Your task to perform on an android device: turn on translation in the chrome app Image 0: 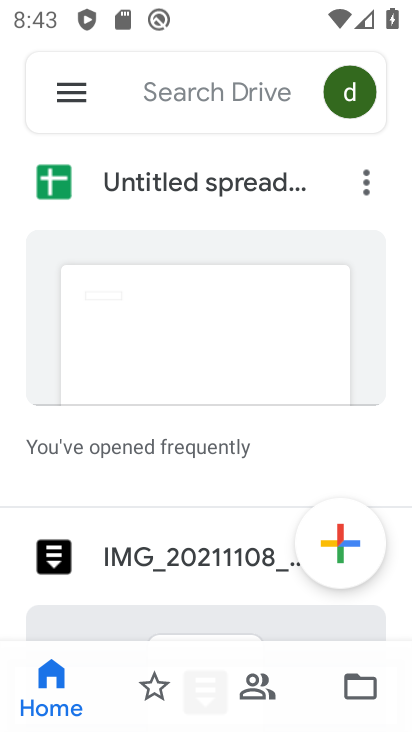
Step 0: press back button
Your task to perform on an android device: turn on translation in the chrome app Image 1: 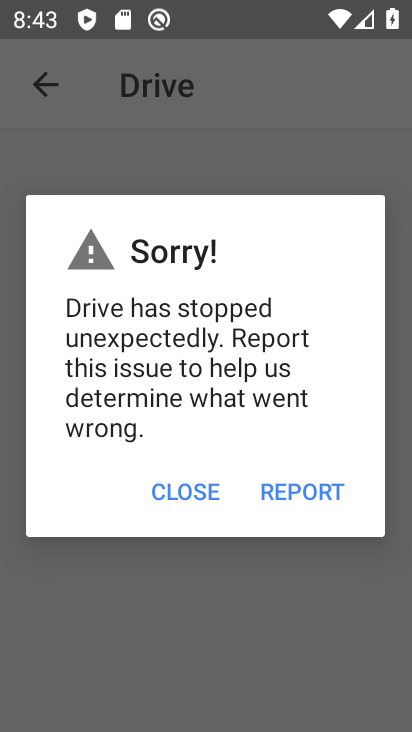
Step 1: press back button
Your task to perform on an android device: turn on translation in the chrome app Image 2: 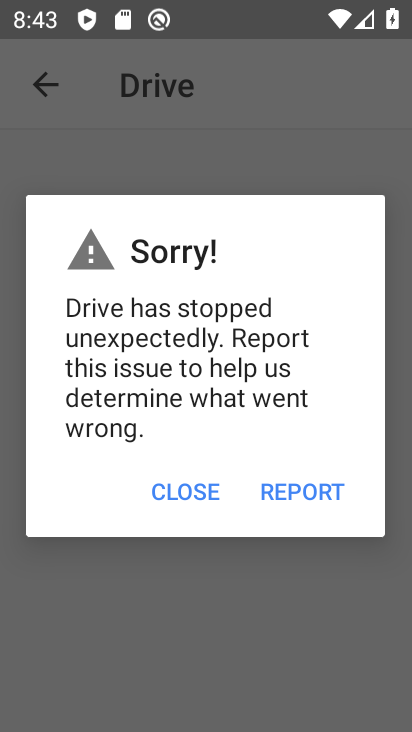
Step 2: press home button
Your task to perform on an android device: turn on translation in the chrome app Image 3: 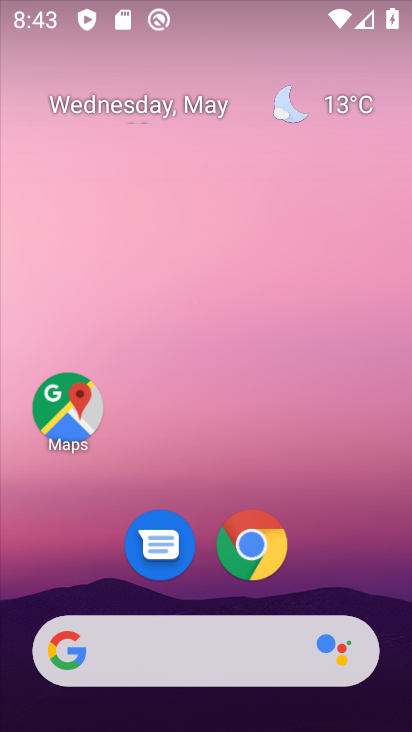
Step 3: drag from (362, 537) to (279, 17)
Your task to perform on an android device: turn on translation in the chrome app Image 4: 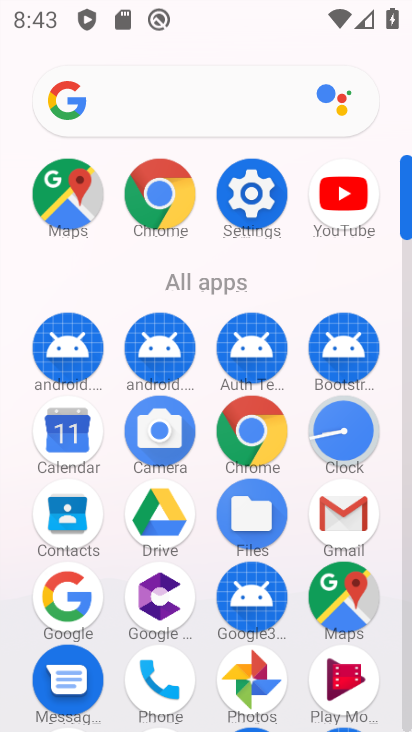
Step 4: drag from (13, 566) to (36, 216)
Your task to perform on an android device: turn on translation in the chrome app Image 5: 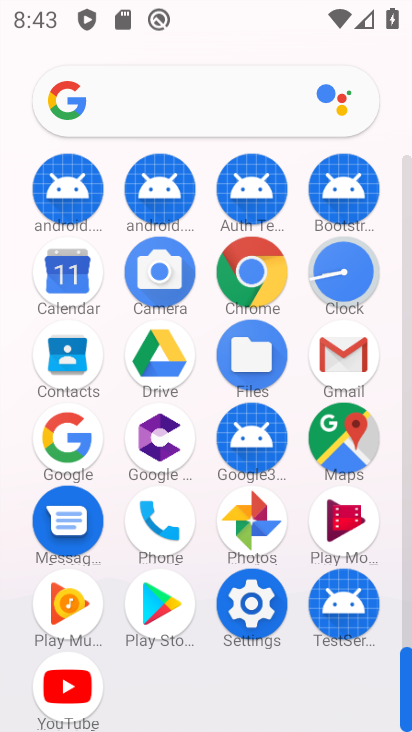
Step 5: click (249, 268)
Your task to perform on an android device: turn on translation in the chrome app Image 6: 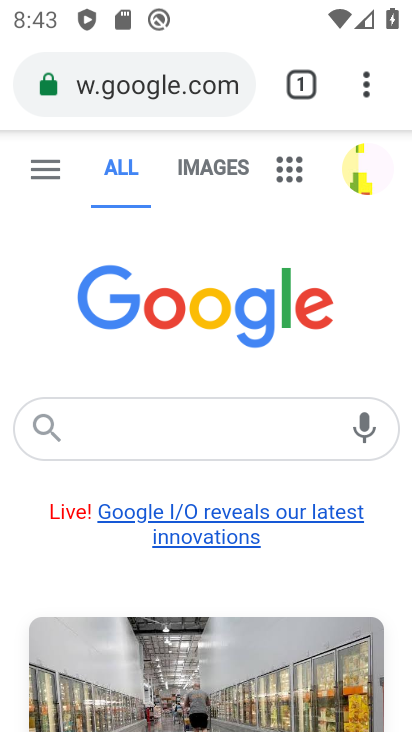
Step 6: drag from (369, 83) to (137, 586)
Your task to perform on an android device: turn on translation in the chrome app Image 7: 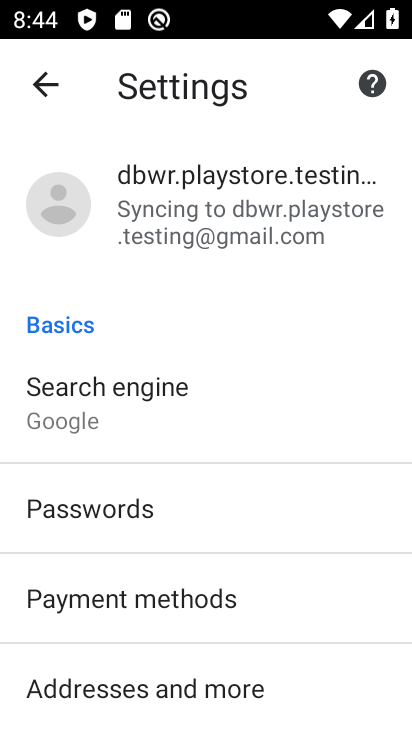
Step 7: drag from (276, 580) to (298, 205)
Your task to perform on an android device: turn on translation in the chrome app Image 8: 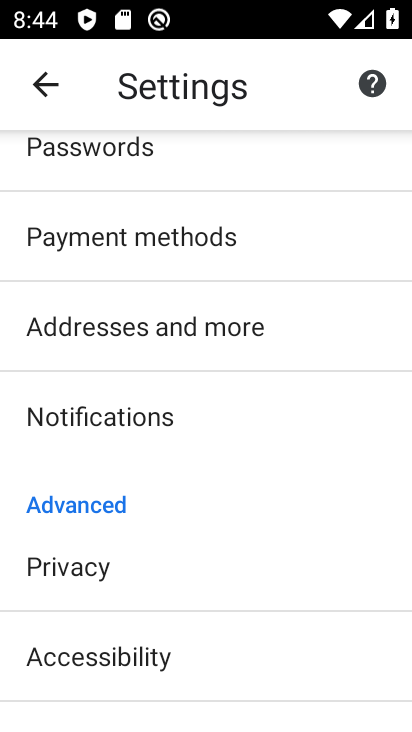
Step 8: drag from (287, 577) to (258, 278)
Your task to perform on an android device: turn on translation in the chrome app Image 9: 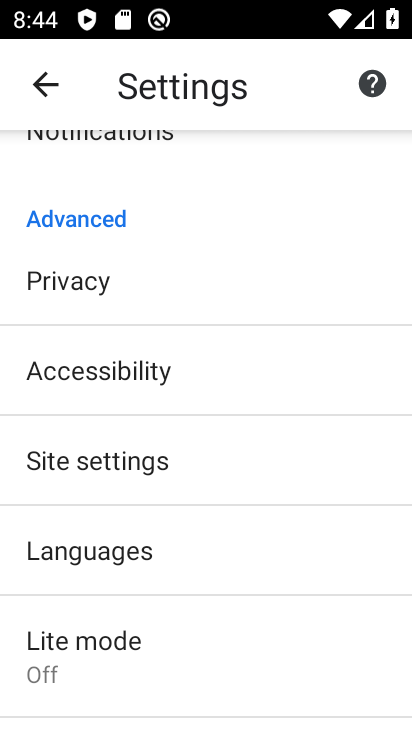
Step 9: drag from (288, 561) to (279, 269)
Your task to perform on an android device: turn on translation in the chrome app Image 10: 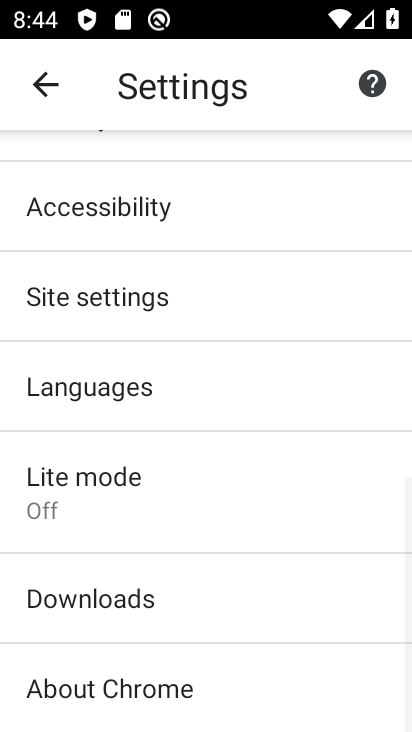
Step 10: click (176, 390)
Your task to perform on an android device: turn on translation in the chrome app Image 11: 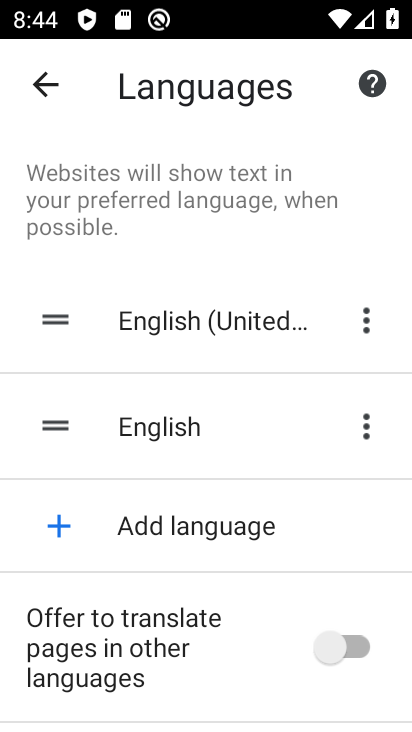
Step 11: click (335, 652)
Your task to perform on an android device: turn on translation in the chrome app Image 12: 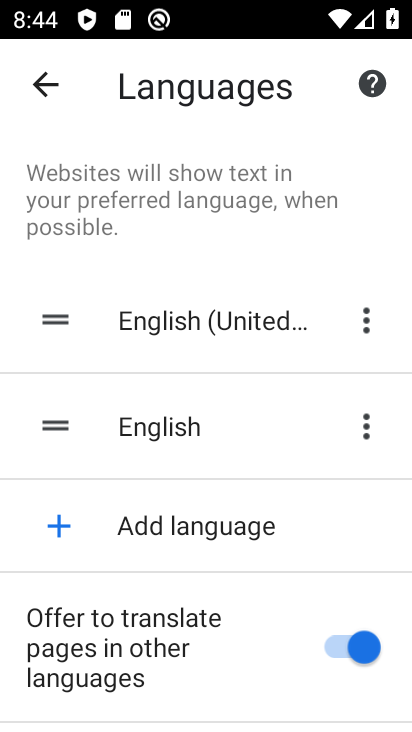
Step 12: task complete